Your task to perform on an android device: choose inbox layout in the gmail app Image 0: 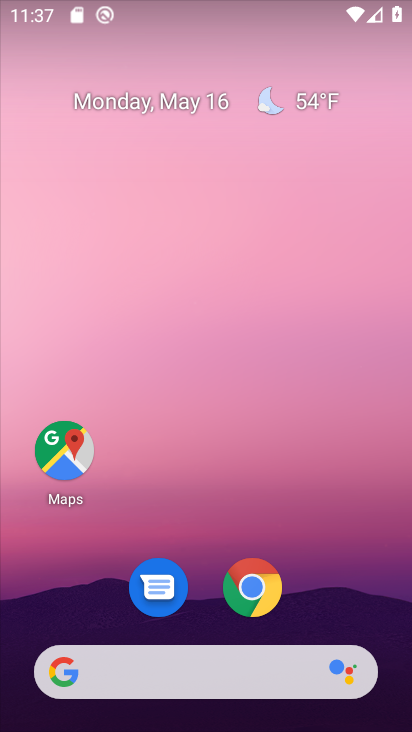
Step 0: drag from (207, 589) to (224, 136)
Your task to perform on an android device: choose inbox layout in the gmail app Image 1: 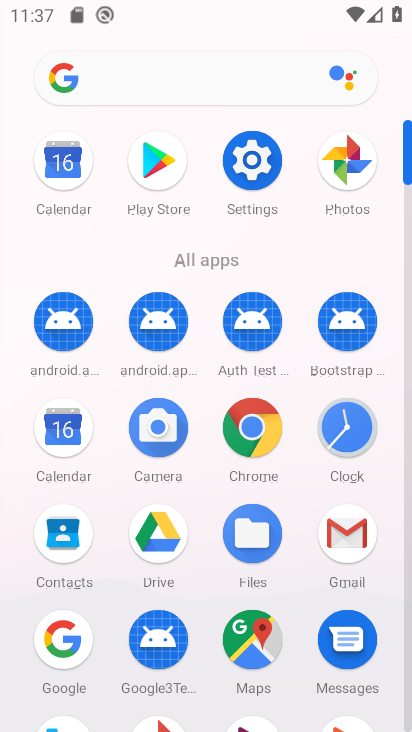
Step 1: click (358, 540)
Your task to perform on an android device: choose inbox layout in the gmail app Image 2: 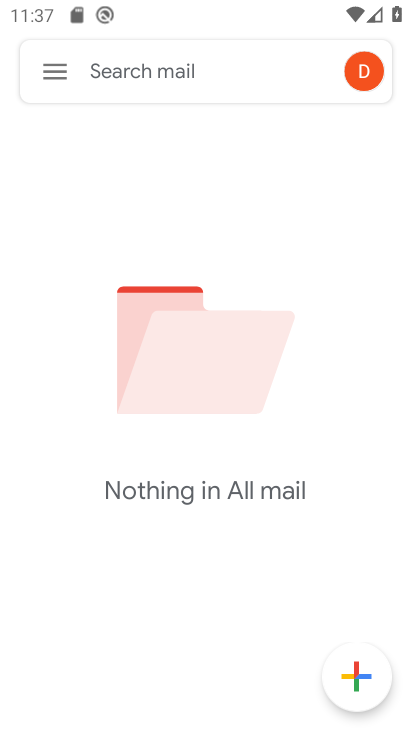
Step 2: click (45, 77)
Your task to perform on an android device: choose inbox layout in the gmail app Image 3: 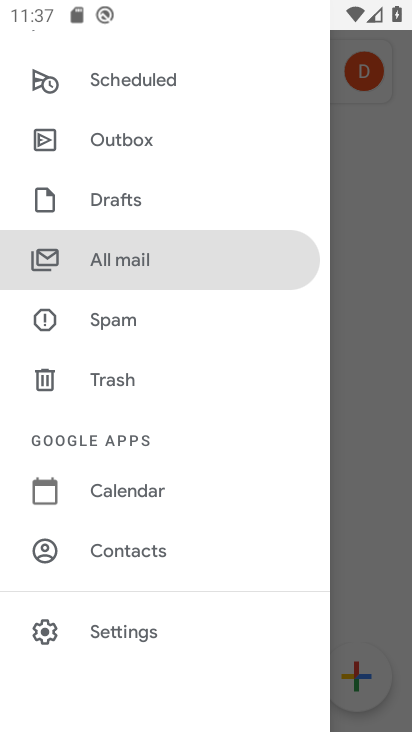
Step 3: click (104, 633)
Your task to perform on an android device: choose inbox layout in the gmail app Image 4: 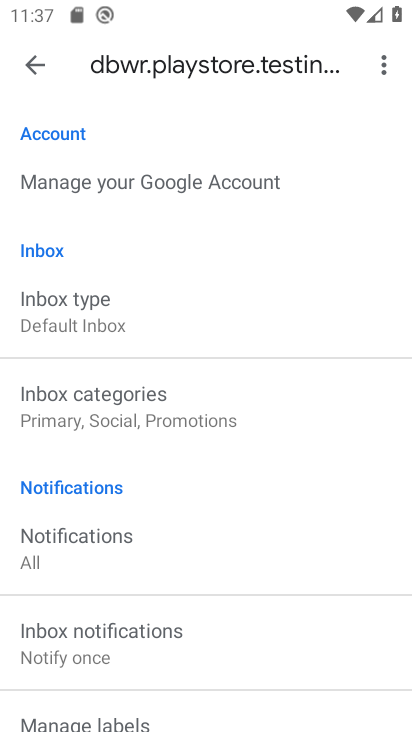
Step 4: drag from (131, 552) to (145, 445)
Your task to perform on an android device: choose inbox layout in the gmail app Image 5: 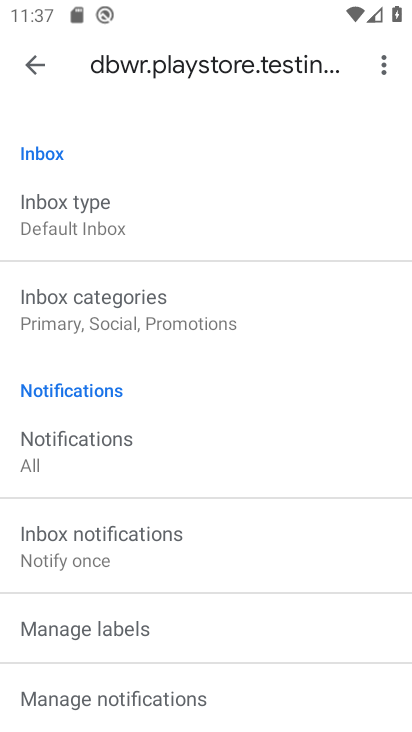
Step 5: click (101, 230)
Your task to perform on an android device: choose inbox layout in the gmail app Image 6: 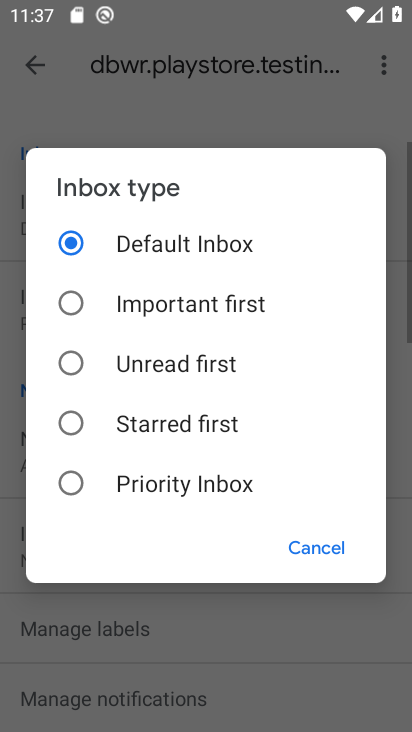
Step 6: click (143, 495)
Your task to perform on an android device: choose inbox layout in the gmail app Image 7: 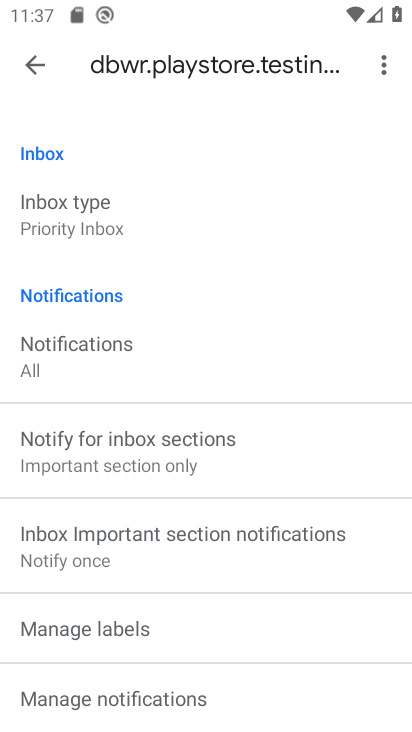
Step 7: task complete